Your task to perform on an android device: turn off data saver in the chrome app Image 0: 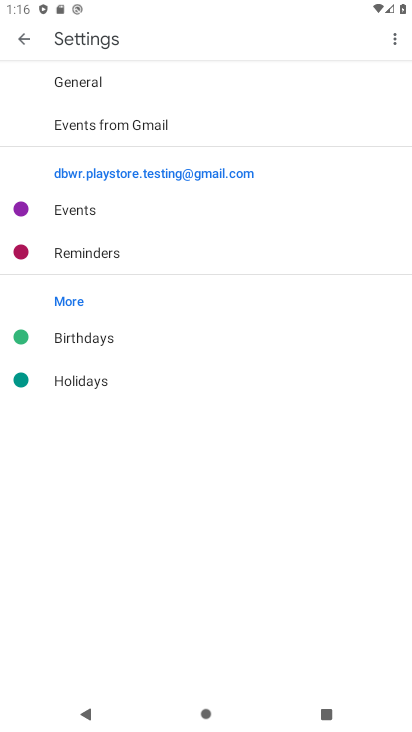
Step 0: drag from (284, 622) to (307, 470)
Your task to perform on an android device: turn off data saver in the chrome app Image 1: 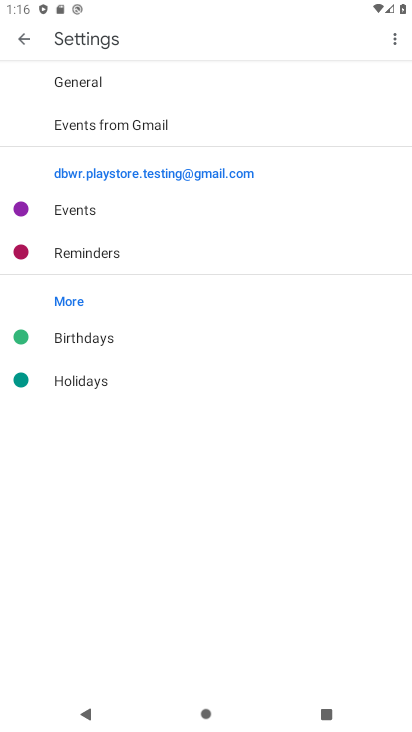
Step 1: press home button
Your task to perform on an android device: turn off data saver in the chrome app Image 2: 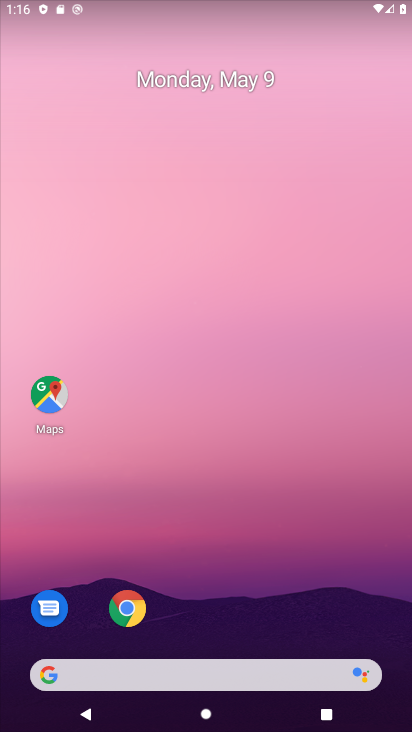
Step 2: drag from (216, 38) to (237, 195)
Your task to perform on an android device: turn off data saver in the chrome app Image 3: 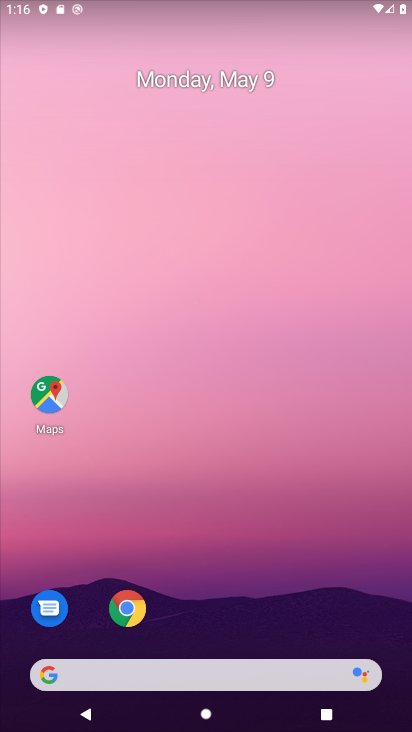
Step 3: drag from (265, 546) to (283, 154)
Your task to perform on an android device: turn off data saver in the chrome app Image 4: 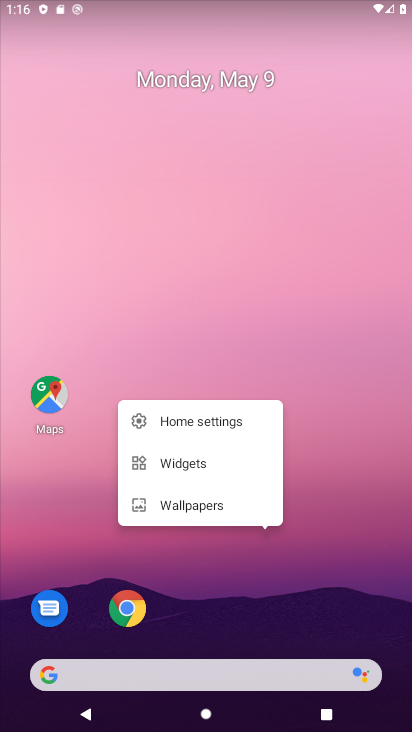
Step 4: click (122, 611)
Your task to perform on an android device: turn off data saver in the chrome app Image 5: 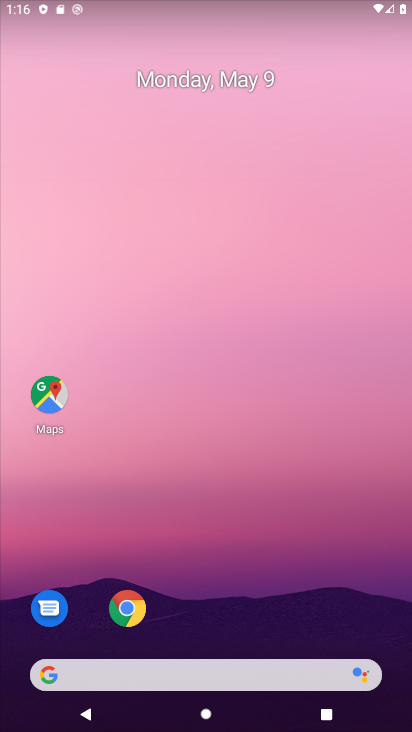
Step 5: click (122, 611)
Your task to perform on an android device: turn off data saver in the chrome app Image 6: 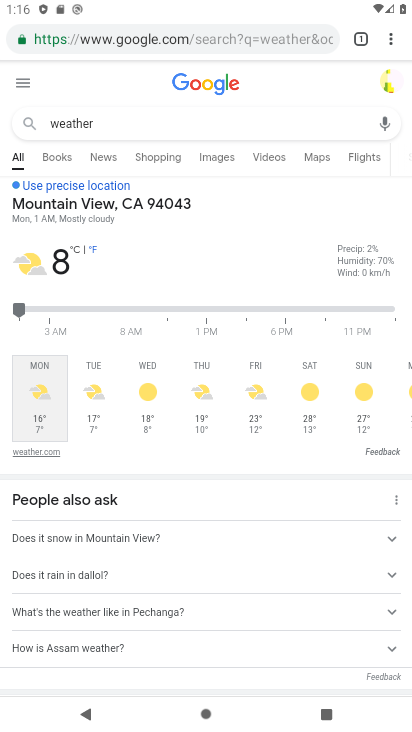
Step 6: drag from (388, 31) to (228, 448)
Your task to perform on an android device: turn off data saver in the chrome app Image 7: 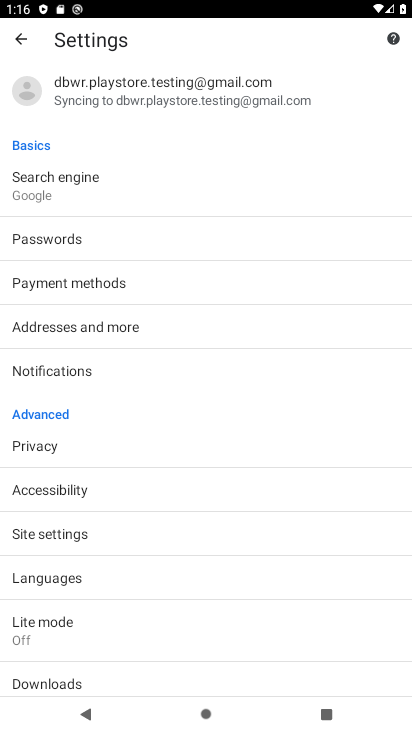
Step 7: drag from (127, 631) to (125, 307)
Your task to perform on an android device: turn off data saver in the chrome app Image 8: 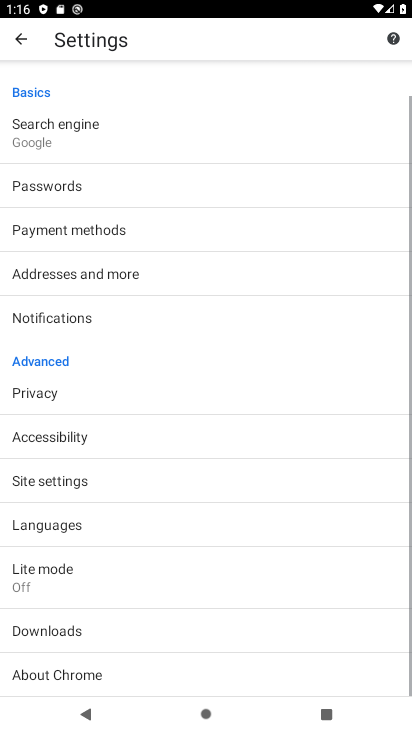
Step 8: click (106, 578)
Your task to perform on an android device: turn off data saver in the chrome app Image 9: 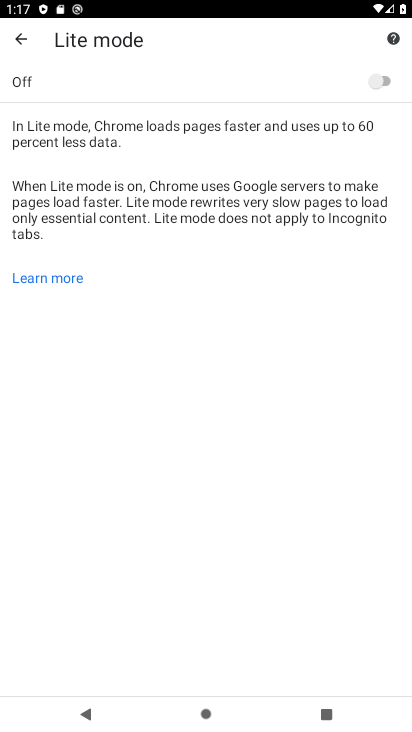
Step 9: task complete